Your task to perform on an android device: Open calendar and show me the fourth week of next month Image 0: 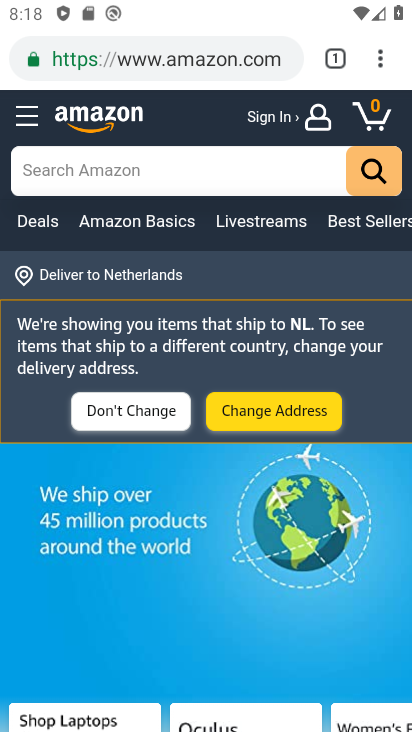
Step 0: press home button
Your task to perform on an android device: Open calendar and show me the fourth week of next month Image 1: 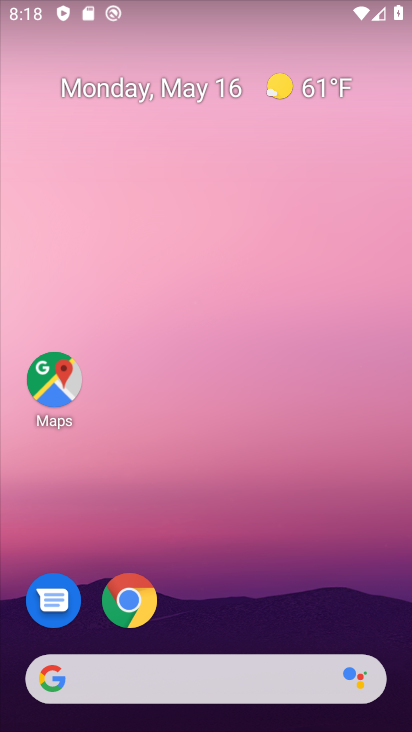
Step 1: drag from (255, 586) to (305, 10)
Your task to perform on an android device: Open calendar and show me the fourth week of next month Image 2: 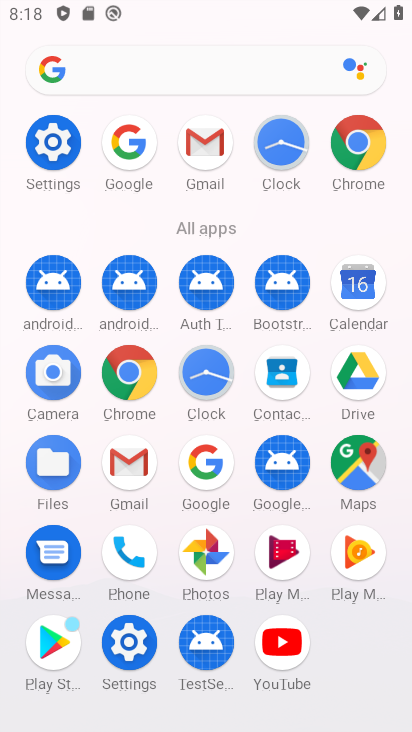
Step 2: click (358, 284)
Your task to perform on an android device: Open calendar and show me the fourth week of next month Image 3: 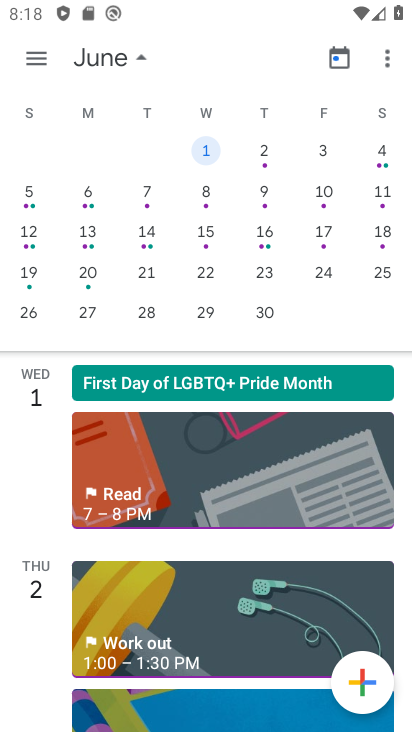
Step 3: click (37, 273)
Your task to perform on an android device: Open calendar and show me the fourth week of next month Image 4: 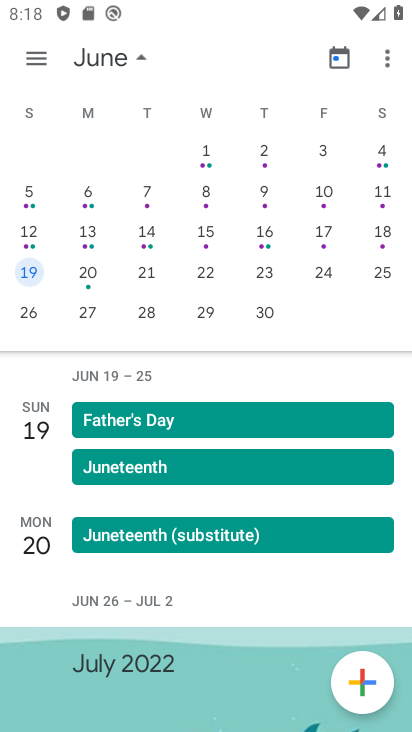
Step 4: task complete